Your task to perform on an android device: open chrome and create a bookmark for the current page Image 0: 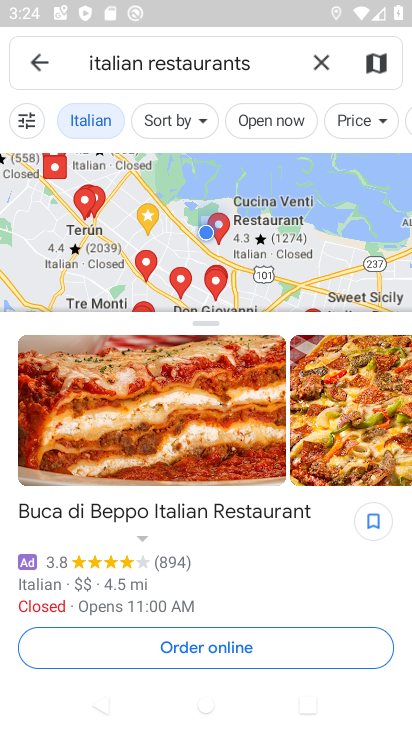
Step 0: press home button
Your task to perform on an android device: open chrome and create a bookmark for the current page Image 1: 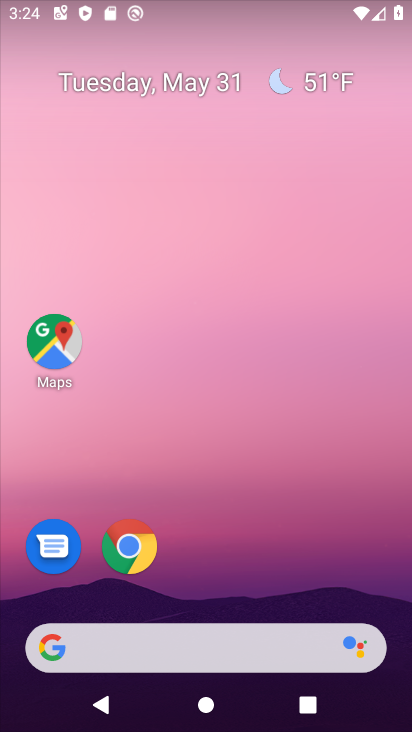
Step 1: drag from (202, 570) to (240, 266)
Your task to perform on an android device: open chrome and create a bookmark for the current page Image 2: 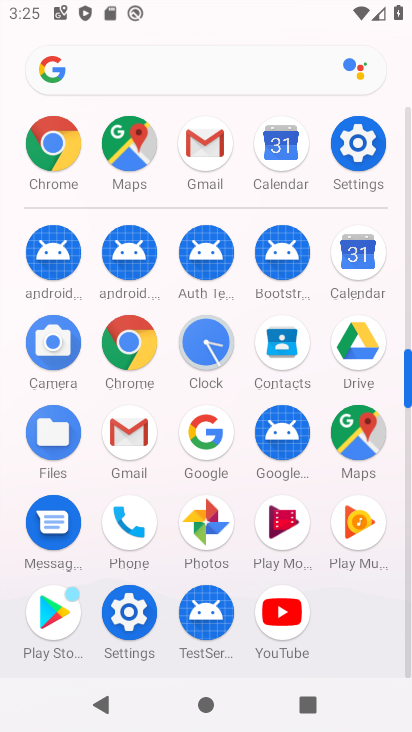
Step 2: click (129, 345)
Your task to perform on an android device: open chrome and create a bookmark for the current page Image 3: 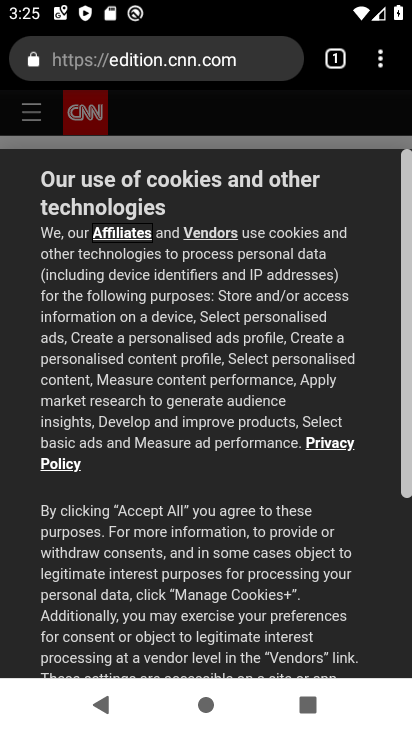
Step 3: click (380, 63)
Your task to perform on an android device: open chrome and create a bookmark for the current page Image 4: 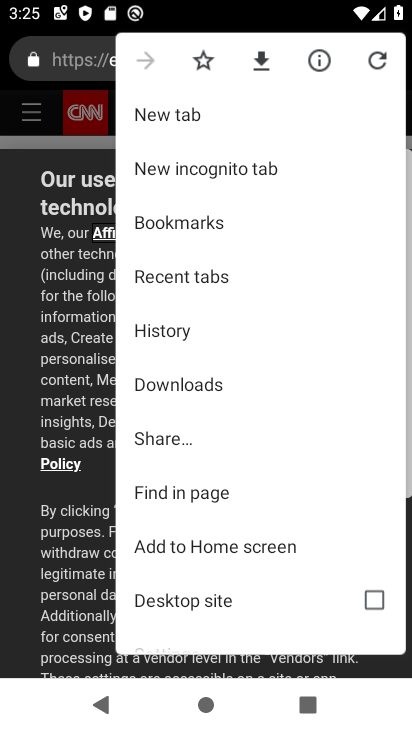
Step 4: click (200, 71)
Your task to perform on an android device: open chrome and create a bookmark for the current page Image 5: 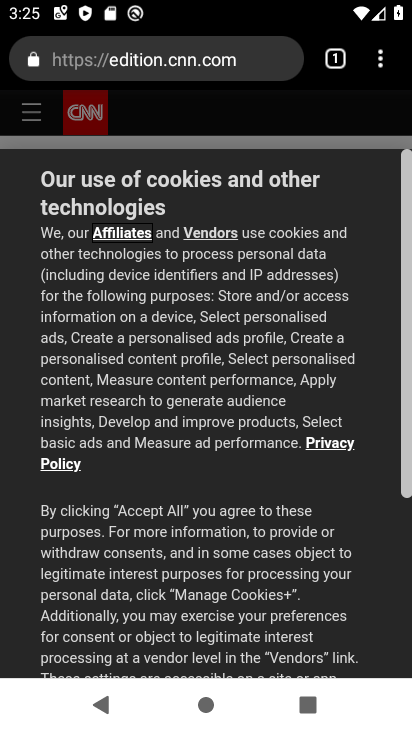
Step 5: task complete